Your task to perform on an android device: Open Yahoo.com Image 0: 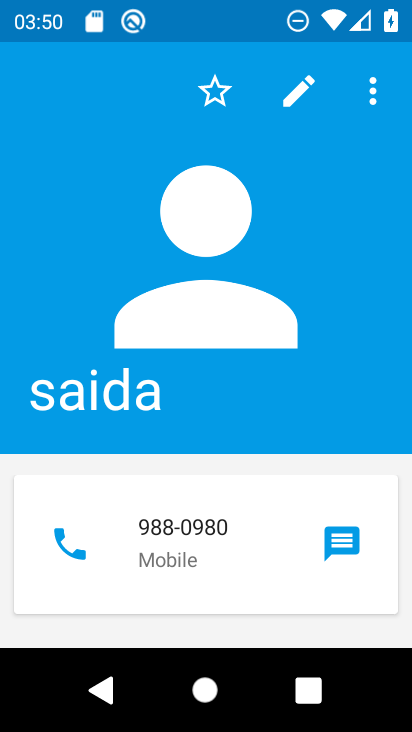
Step 0: press home button
Your task to perform on an android device: Open Yahoo.com Image 1: 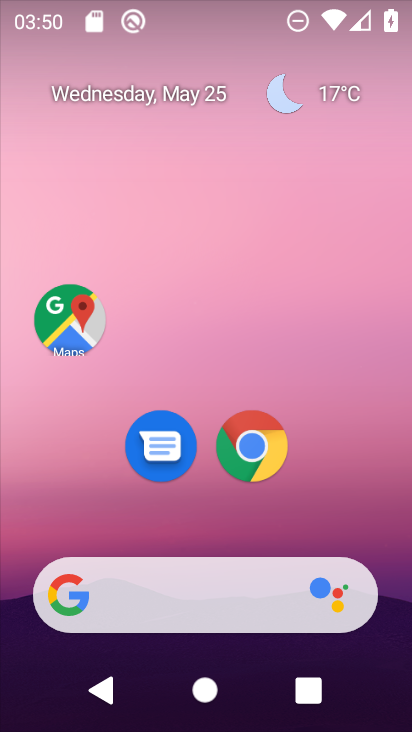
Step 1: click (241, 438)
Your task to perform on an android device: Open Yahoo.com Image 2: 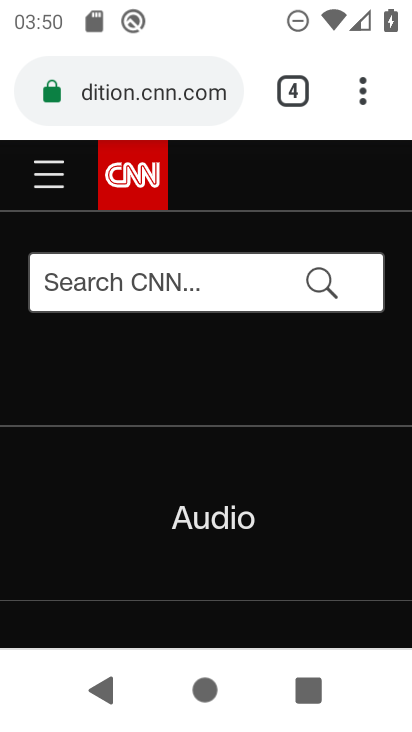
Step 2: click (215, 101)
Your task to perform on an android device: Open Yahoo.com Image 3: 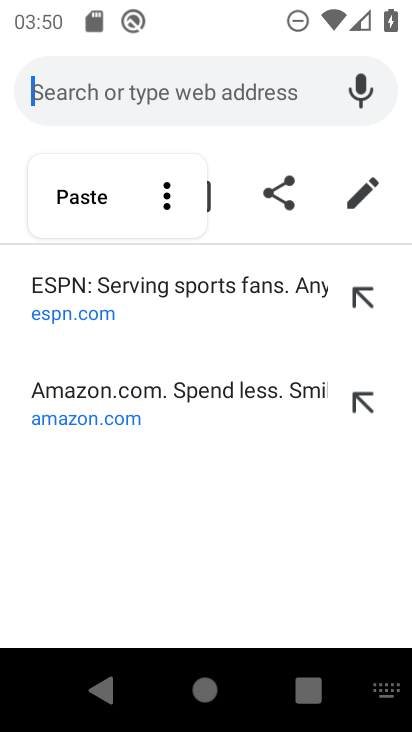
Step 3: type "yahoo.com"
Your task to perform on an android device: Open Yahoo.com Image 4: 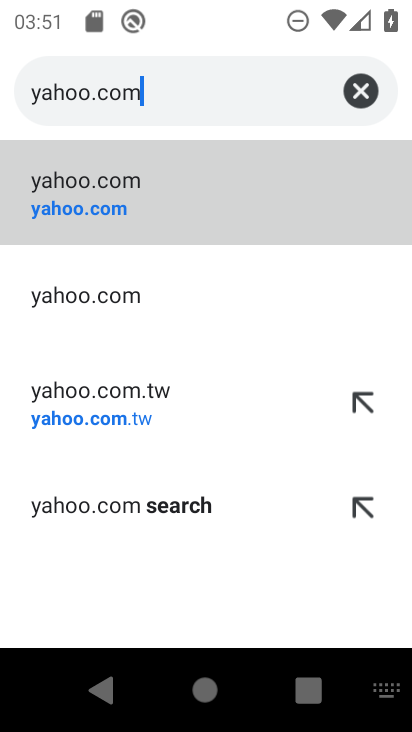
Step 4: click (227, 202)
Your task to perform on an android device: Open Yahoo.com Image 5: 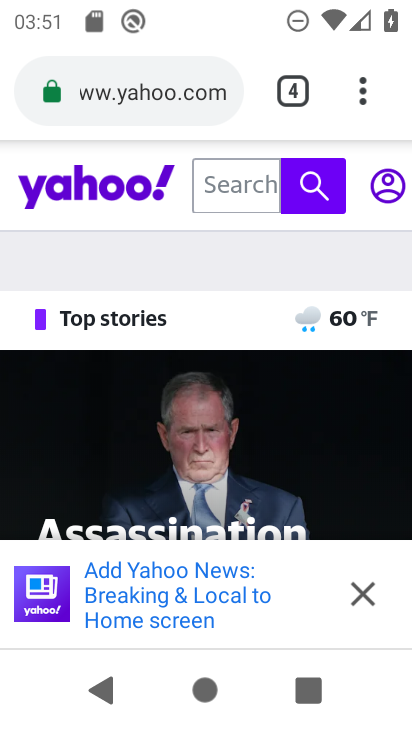
Step 5: task complete